Your task to perform on an android device: change notifications settings Image 0: 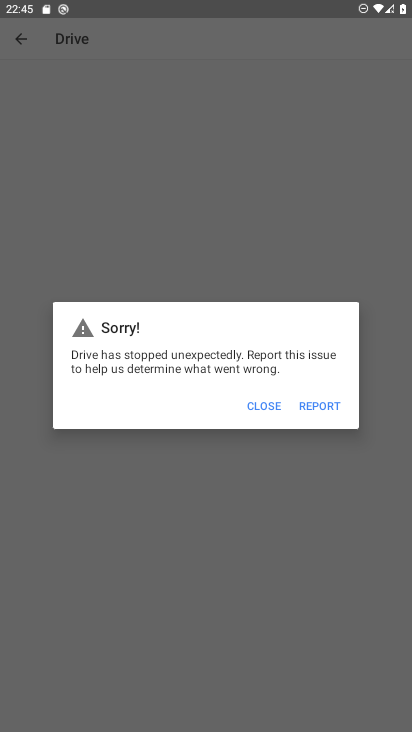
Step 0: press home button
Your task to perform on an android device: change notifications settings Image 1: 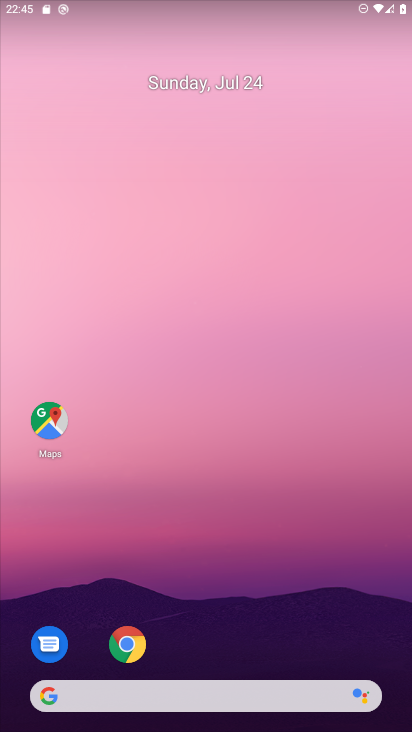
Step 1: drag from (360, 640) to (274, 165)
Your task to perform on an android device: change notifications settings Image 2: 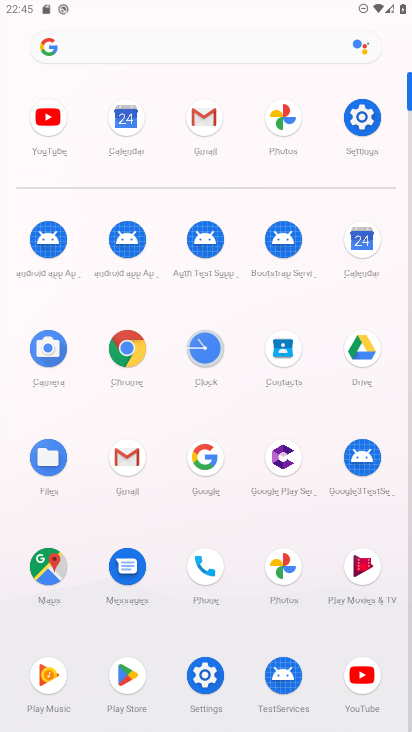
Step 2: click (207, 678)
Your task to perform on an android device: change notifications settings Image 3: 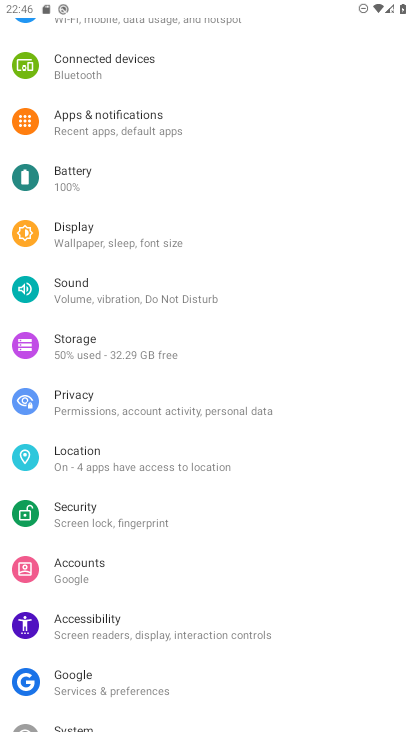
Step 3: click (85, 112)
Your task to perform on an android device: change notifications settings Image 4: 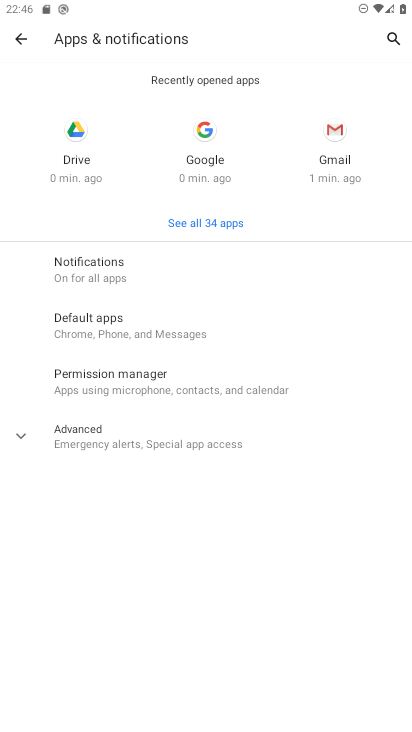
Step 4: click (85, 270)
Your task to perform on an android device: change notifications settings Image 5: 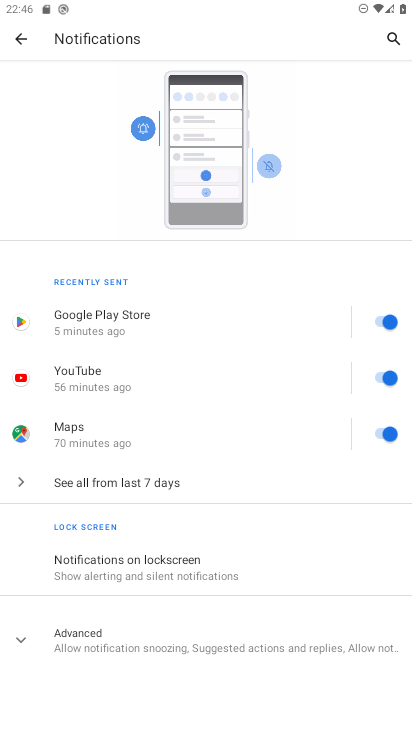
Step 5: click (16, 640)
Your task to perform on an android device: change notifications settings Image 6: 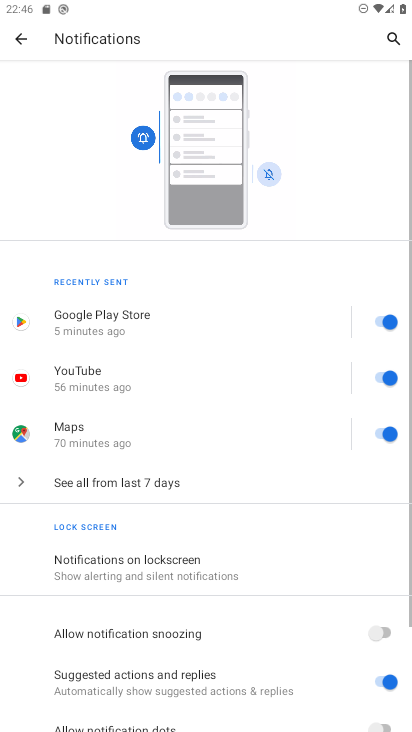
Step 6: drag from (271, 638) to (273, 308)
Your task to perform on an android device: change notifications settings Image 7: 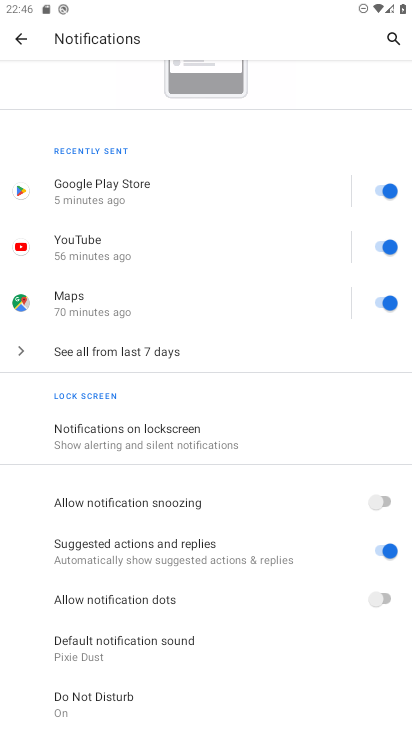
Step 7: click (390, 599)
Your task to perform on an android device: change notifications settings Image 8: 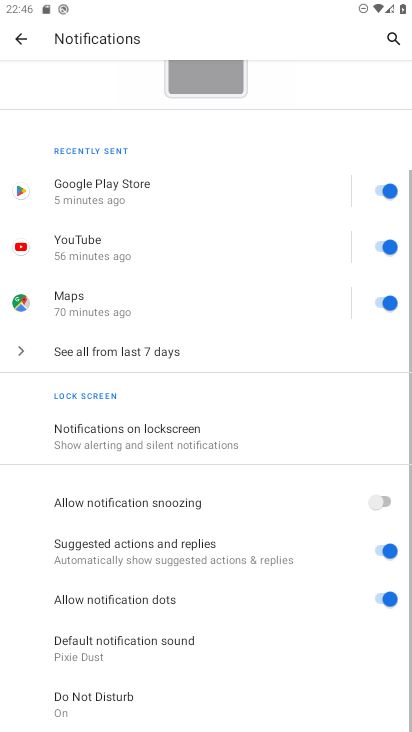
Step 8: click (388, 497)
Your task to perform on an android device: change notifications settings Image 9: 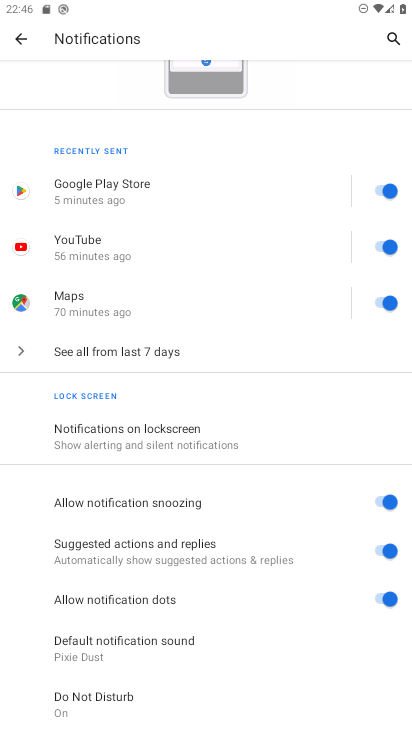
Step 9: task complete